Your task to perform on an android device: Open Chrome and go to settings Image 0: 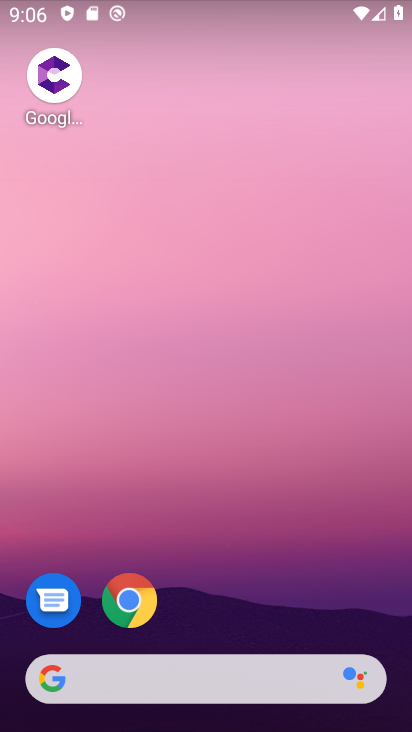
Step 0: press home button
Your task to perform on an android device: Open Chrome and go to settings Image 1: 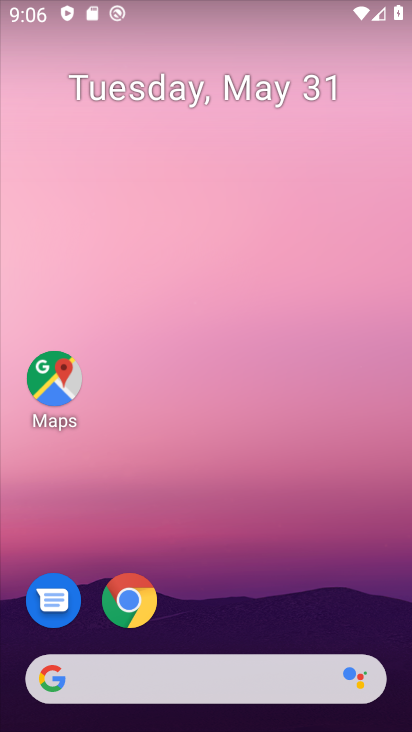
Step 1: click (112, 593)
Your task to perform on an android device: Open Chrome and go to settings Image 2: 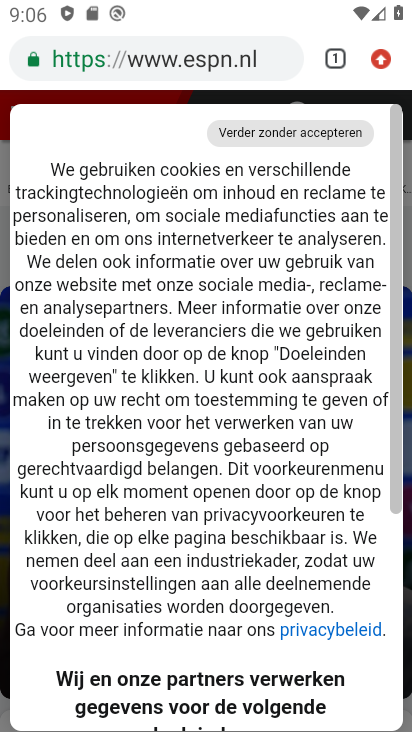
Step 2: click (387, 64)
Your task to perform on an android device: Open Chrome and go to settings Image 3: 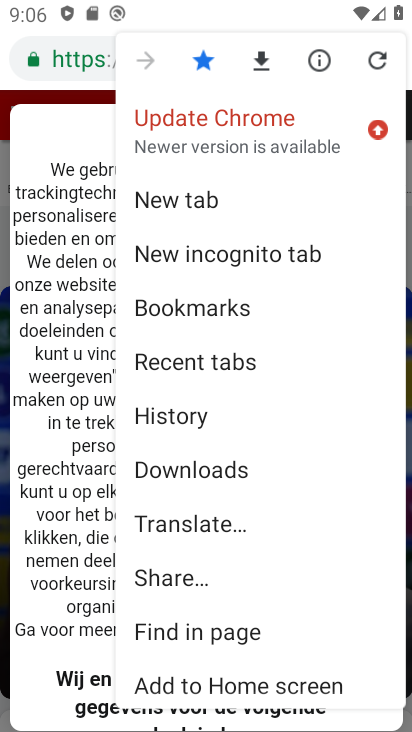
Step 3: drag from (175, 619) to (194, 344)
Your task to perform on an android device: Open Chrome and go to settings Image 4: 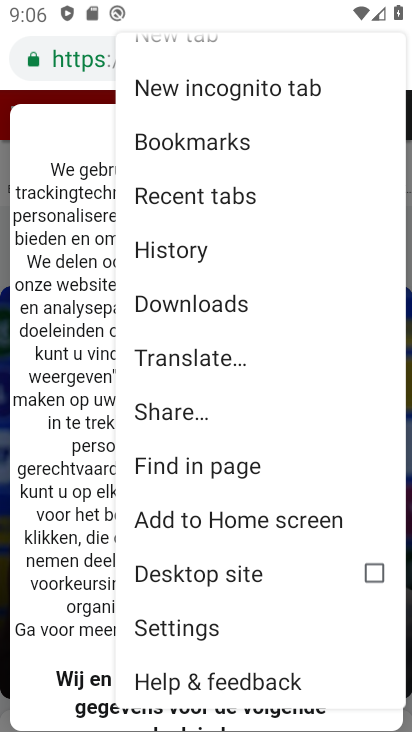
Step 4: click (163, 613)
Your task to perform on an android device: Open Chrome and go to settings Image 5: 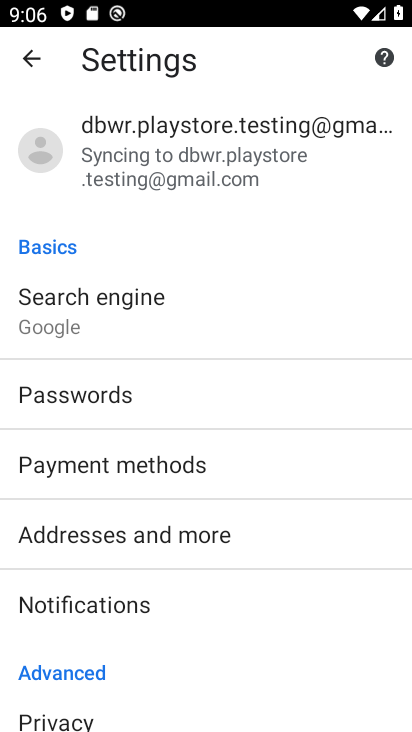
Step 5: task complete